Your task to perform on an android device: Search for the new Apple Watch on Best Buy Image 0: 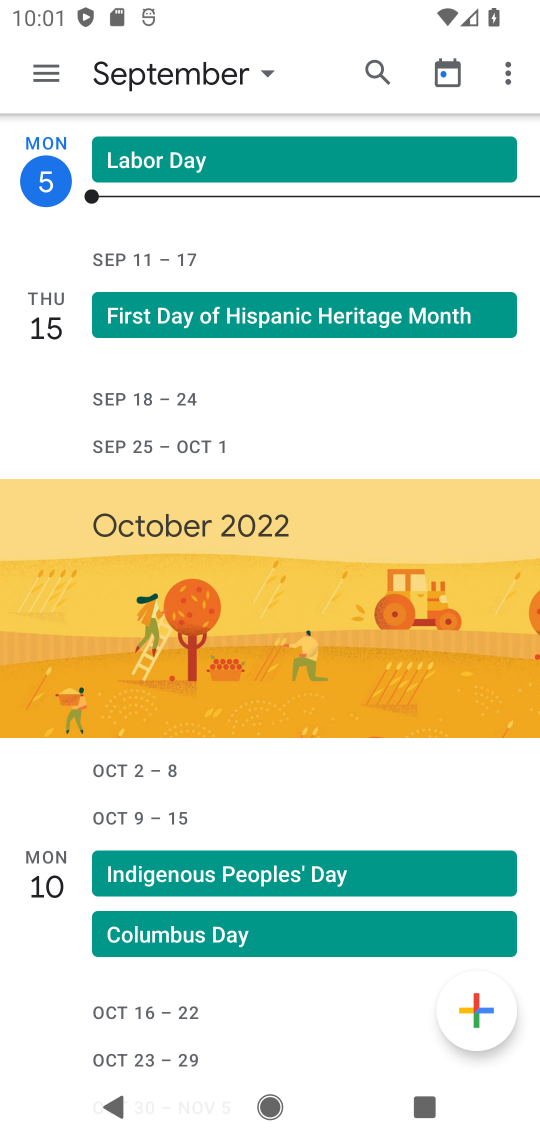
Step 0: press home button
Your task to perform on an android device: Search for the new Apple Watch on Best Buy Image 1: 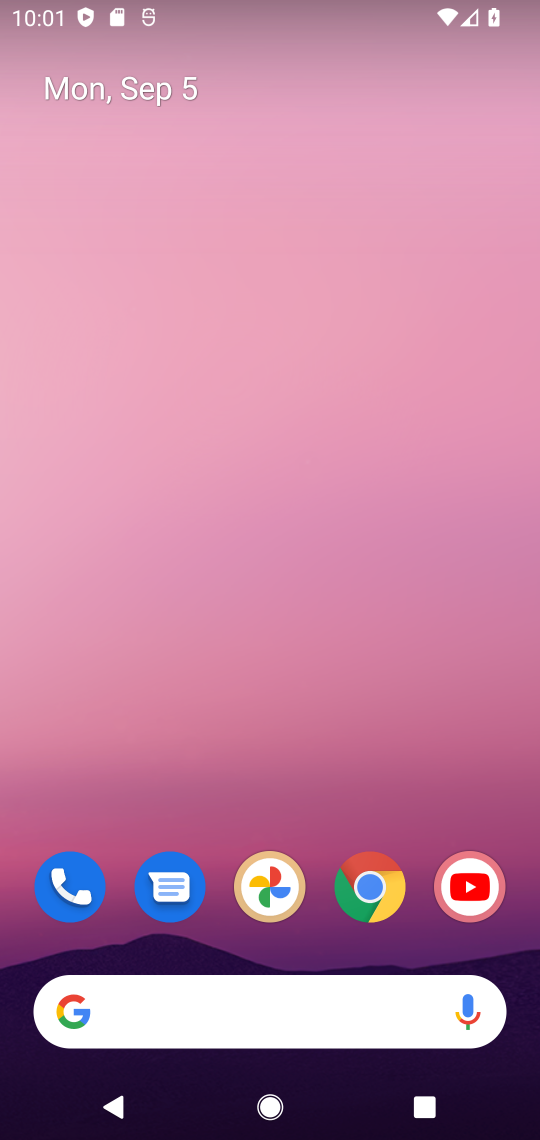
Step 1: click (371, 897)
Your task to perform on an android device: Search for the new Apple Watch on Best Buy Image 2: 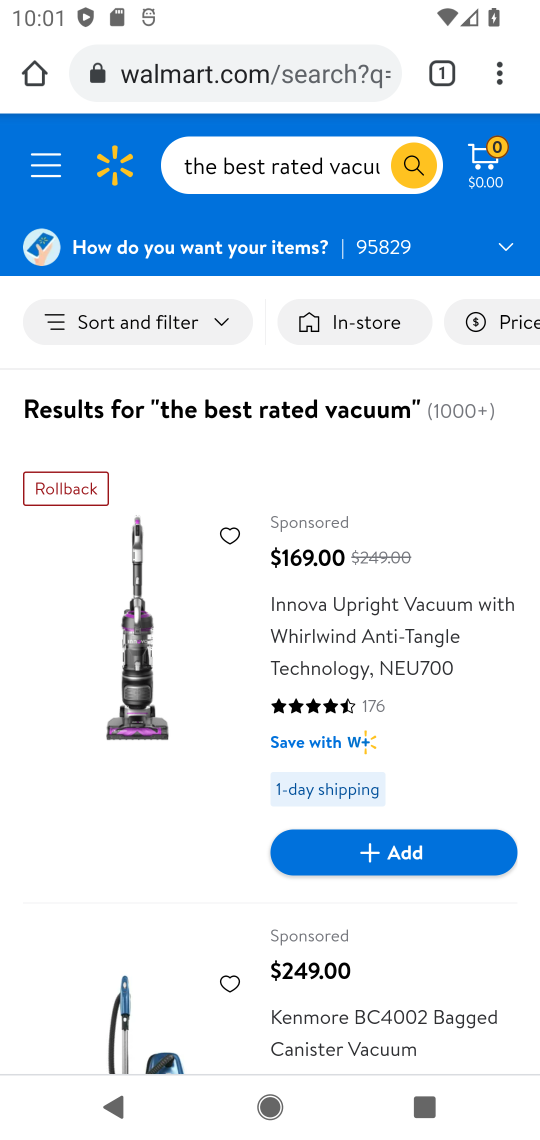
Step 2: click (185, 65)
Your task to perform on an android device: Search for the new Apple Watch on Best Buy Image 3: 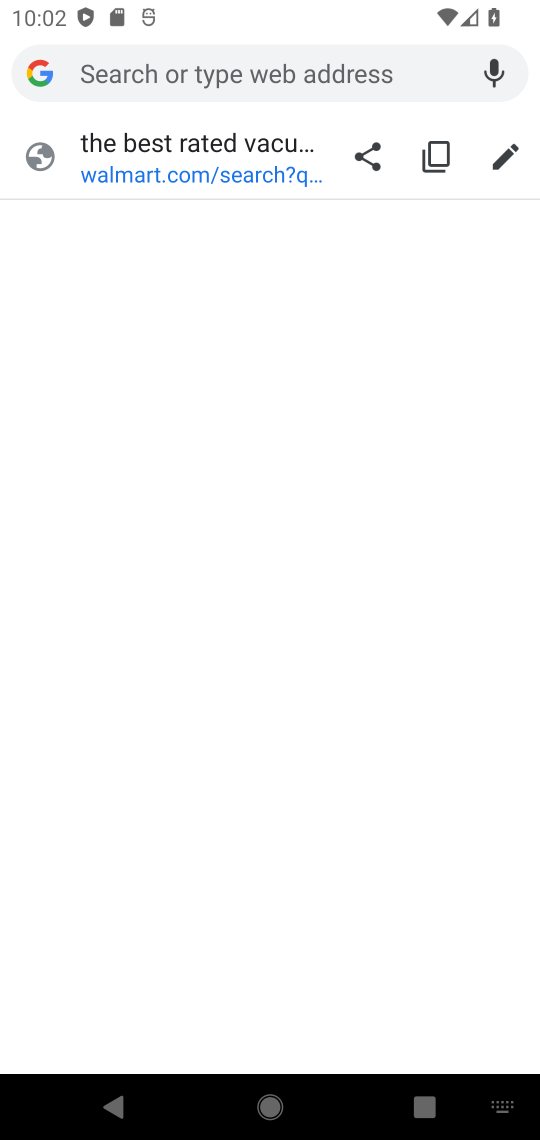
Step 3: type "best buy"
Your task to perform on an android device: Search for the new Apple Watch on Best Buy Image 4: 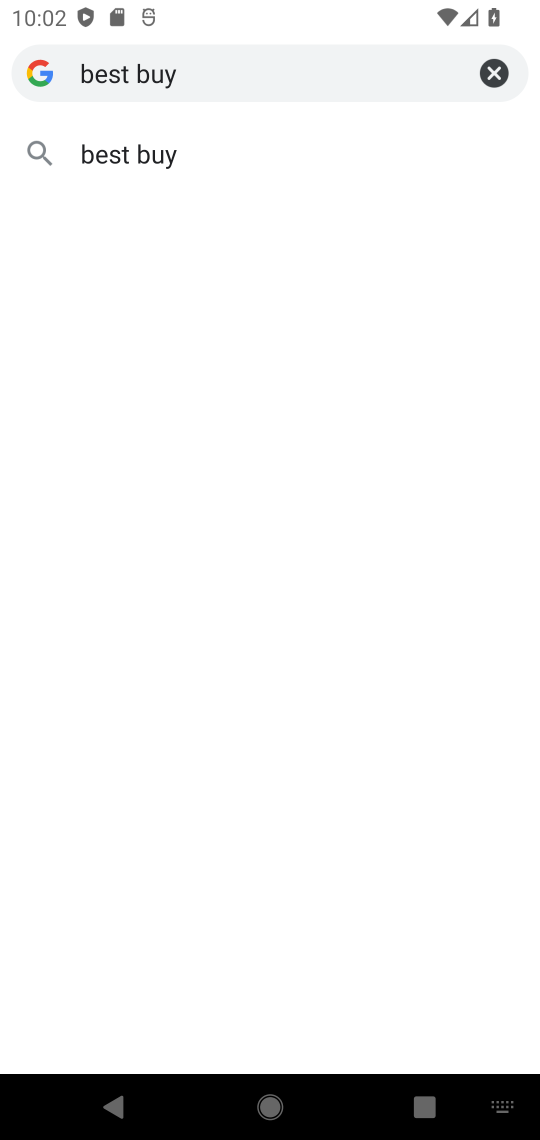
Step 4: click (114, 158)
Your task to perform on an android device: Search for the new Apple Watch on Best Buy Image 5: 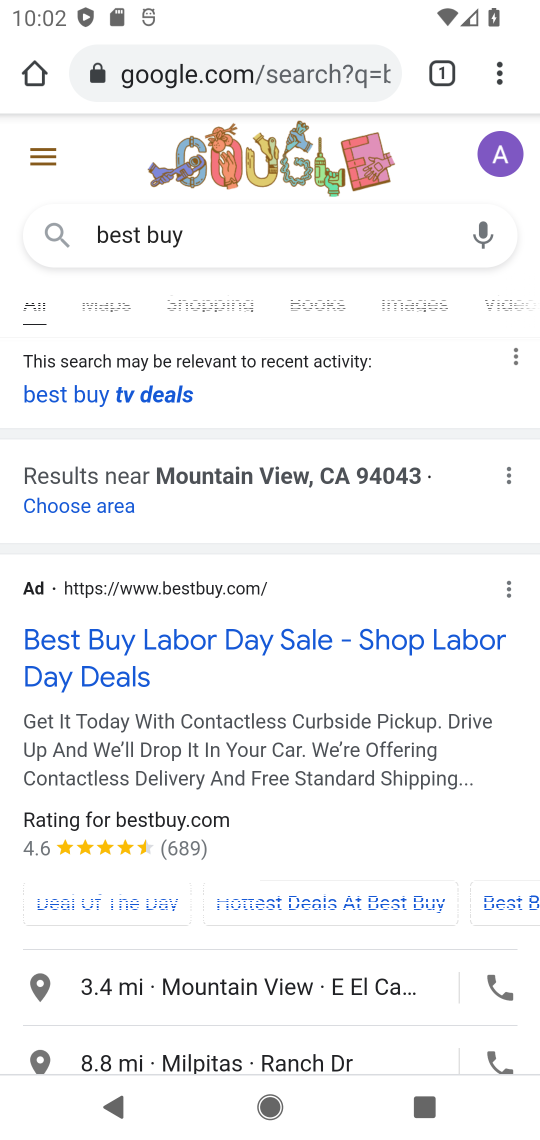
Step 5: click (264, 677)
Your task to perform on an android device: Search for the new Apple Watch on Best Buy Image 6: 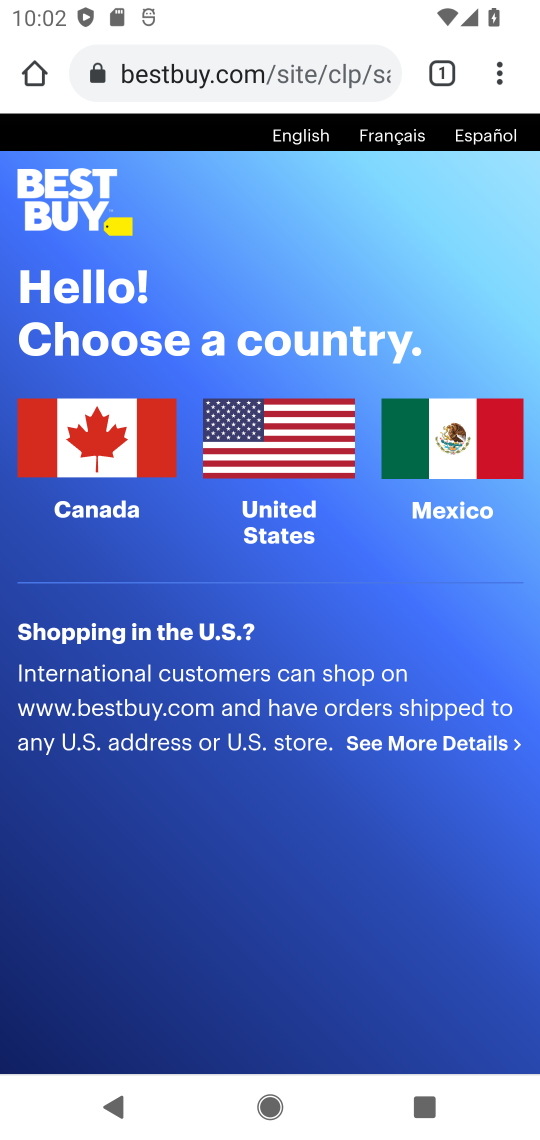
Step 6: click (260, 436)
Your task to perform on an android device: Search for the new Apple Watch on Best Buy Image 7: 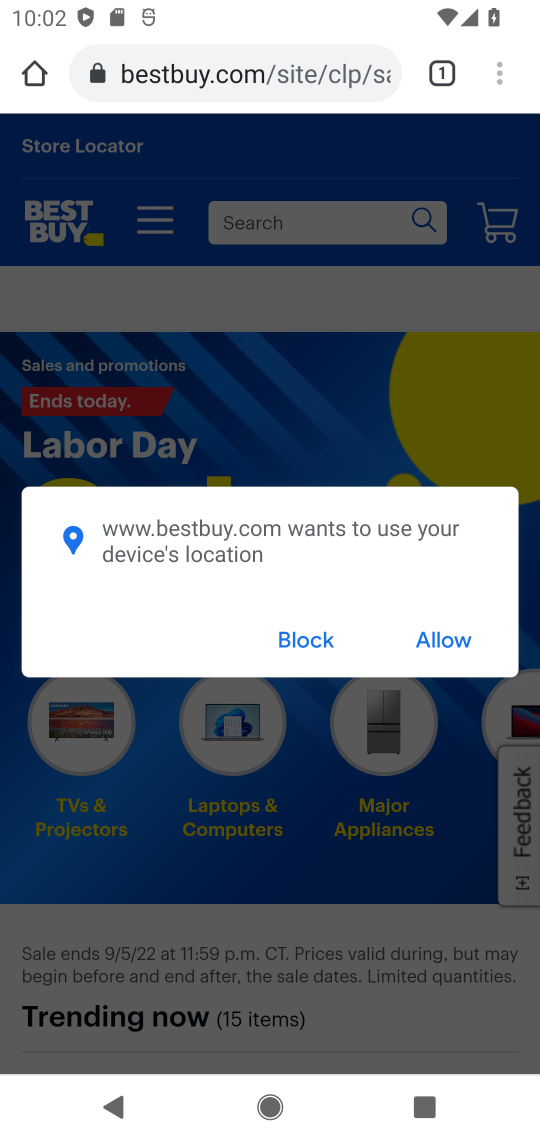
Step 7: click (293, 642)
Your task to perform on an android device: Search for the new Apple Watch on Best Buy Image 8: 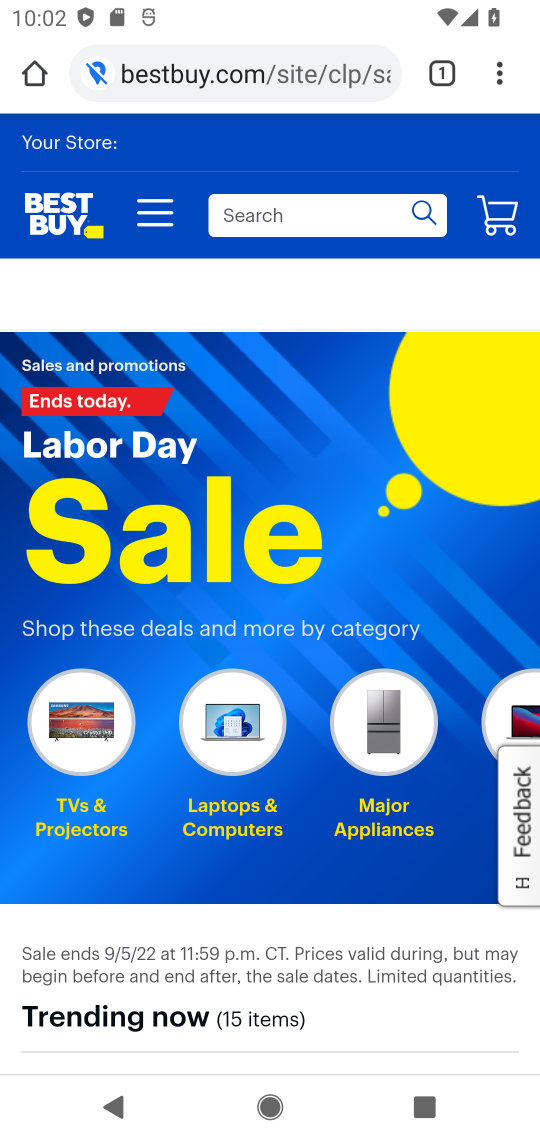
Step 8: click (277, 206)
Your task to perform on an android device: Search for the new Apple Watch on Best Buy Image 9: 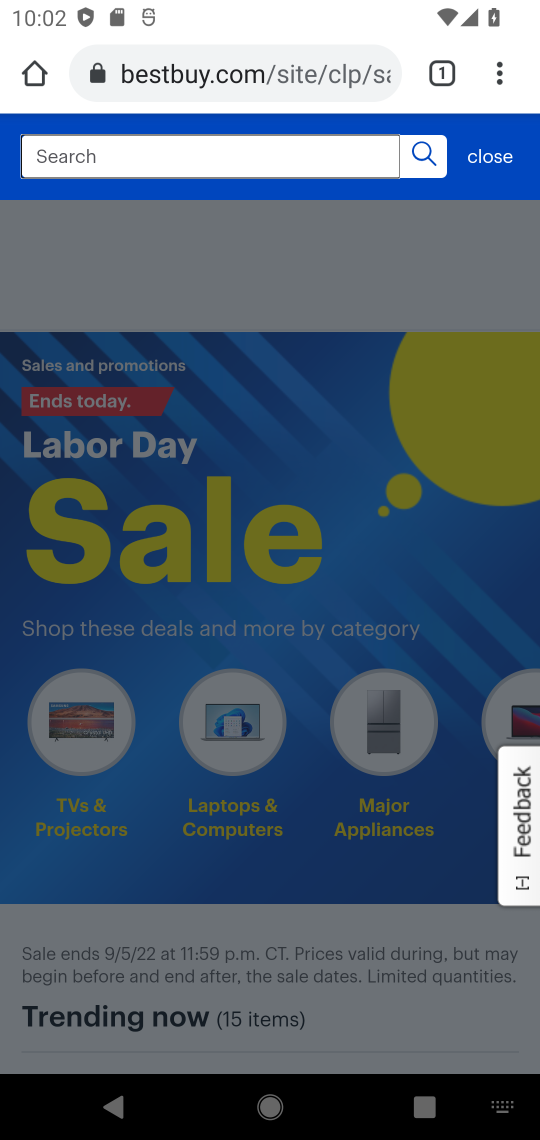
Step 9: type "the new Apple Watch"
Your task to perform on an android device: Search for the new Apple Watch on Best Buy Image 10: 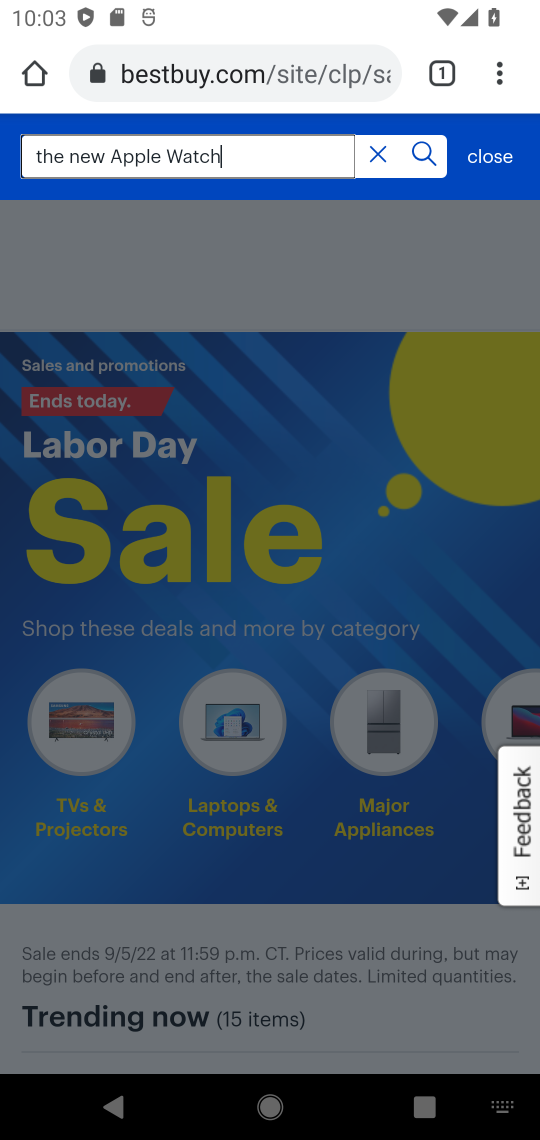
Step 10: click (418, 153)
Your task to perform on an android device: Search for the new Apple Watch on Best Buy Image 11: 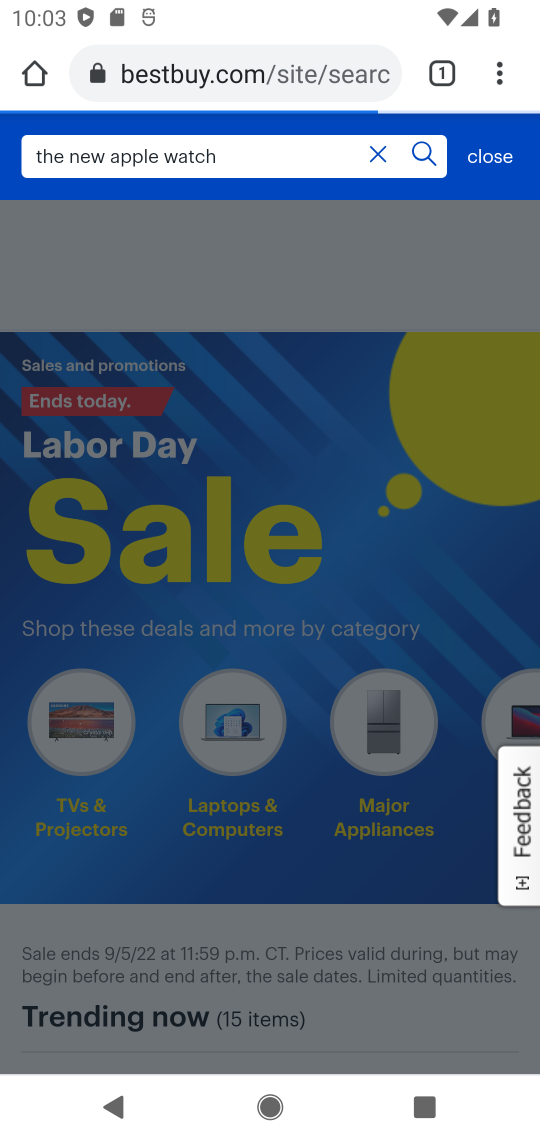
Step 11: click (424, 146)
Your task to perform on an android device: Search for the new Apple Watch on Best Buy Image 12: 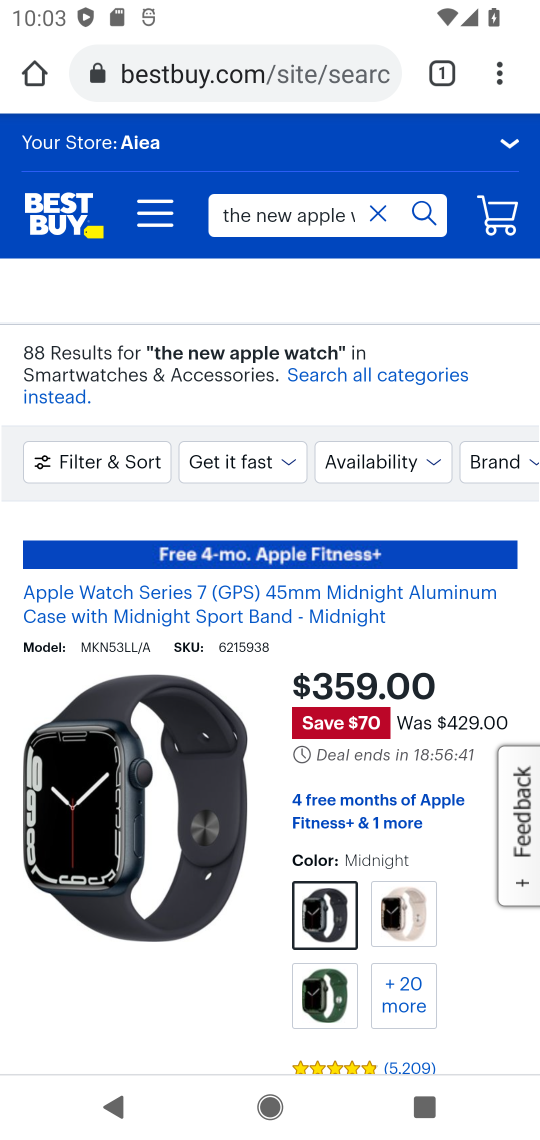
Step 12: task complete